Your task to perform on an android device: Do I have any events tomorrow? Image 0: 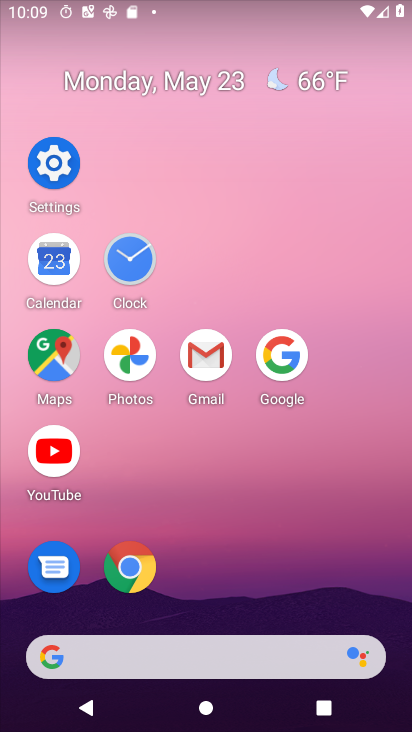
Step 0: click (64, 265)
Your task to perform on an android device: Do I have any events tomorrow? Image 1: 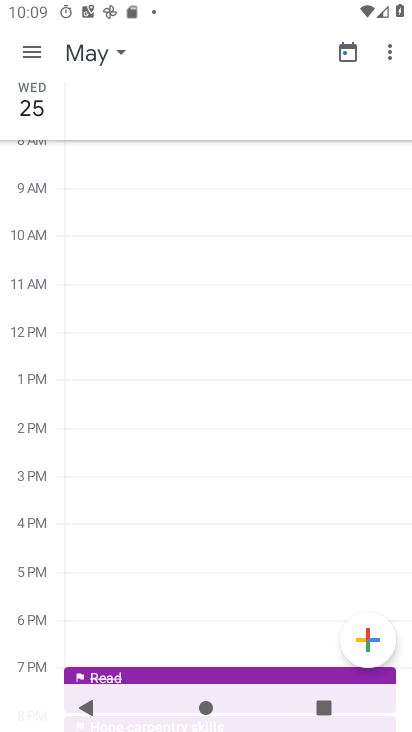
Step 1: click (47, 113)
Your task to perform on an android device: Do I have any events tomorrow? Image 2: 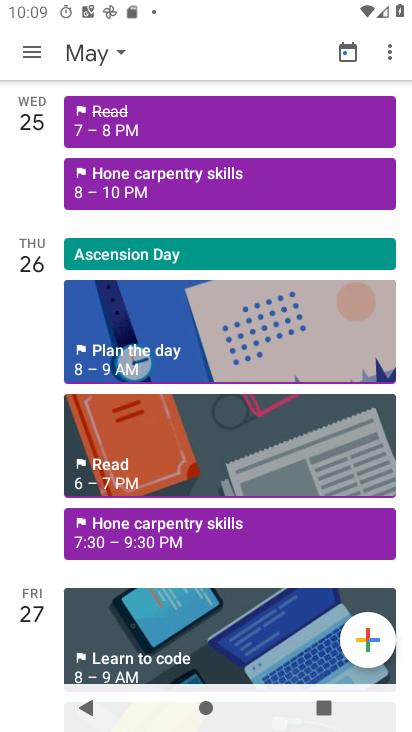
Step 2: task complete